Your task to perform on an android device: What's the weather? Image 0: 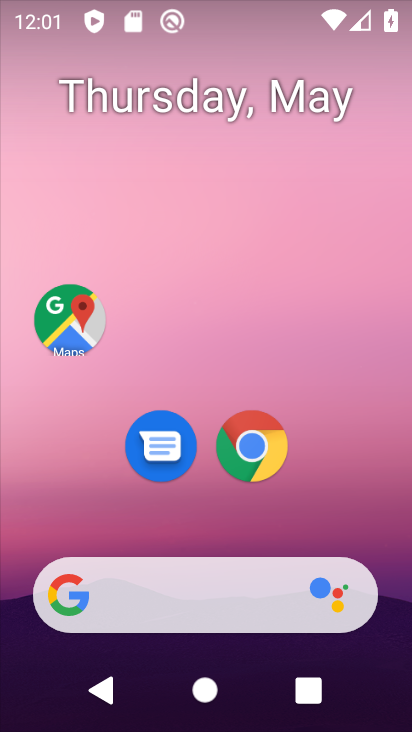
Step 0: drag from (349, 475) to (354, 226)
Your task to perform on an android device: What's the weather? Image 1: 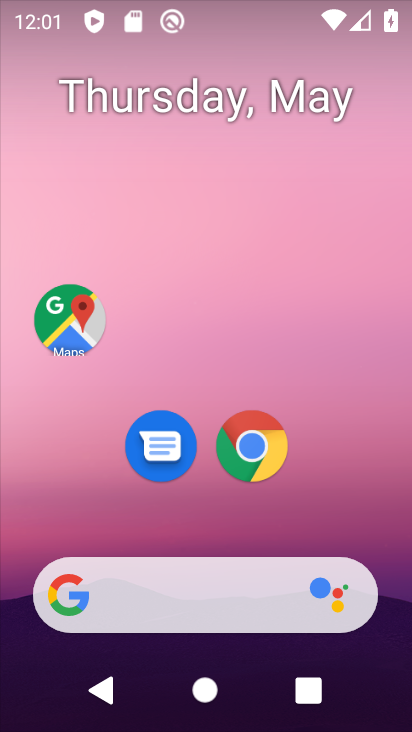
Step 1: click (259, 454)
Your task to perform on an android device: What's the weather? Image 2: 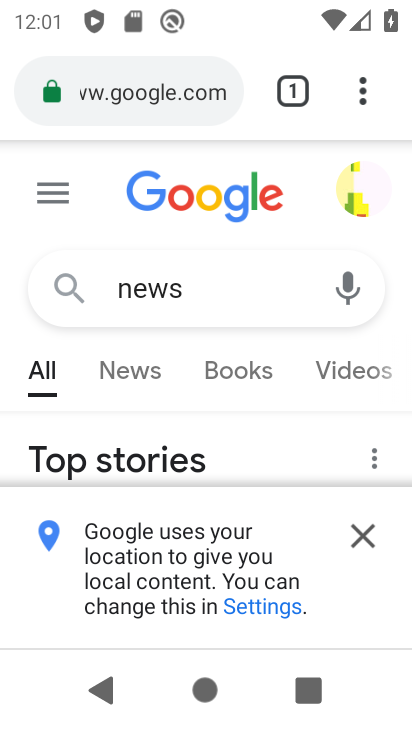
Step 2: click (151, 91)
Your task to perform on an android device: What's the weather? Image 3: 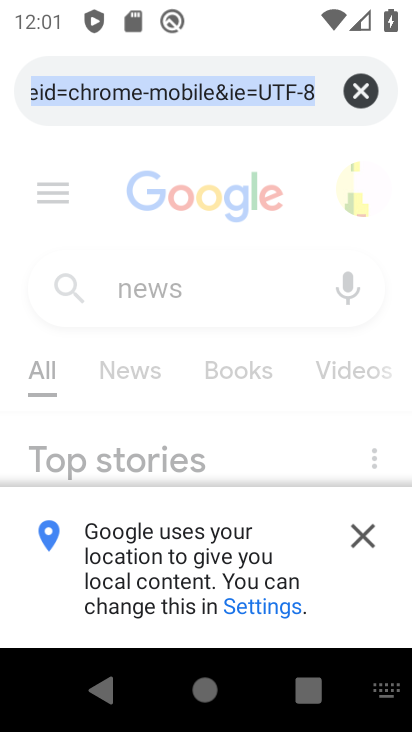
Step 3: click (362, 97)
Your task to perform on an android device: What's the weather? Image 4: 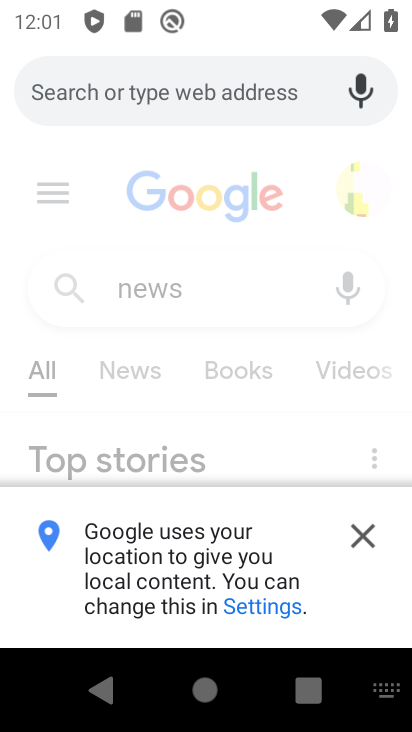
Step 4: type "What's the weather?"
Your task to perform on an android device: What's the weather? Image 5: 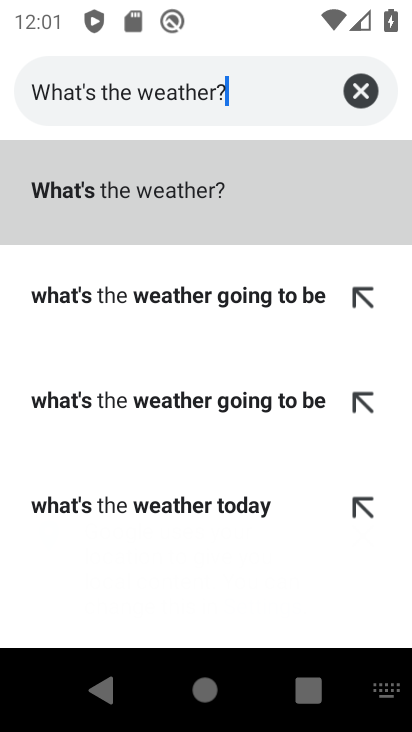
Step 5: click (208, 163)
Your task to perform on an android device: What's the weather? Image 6: 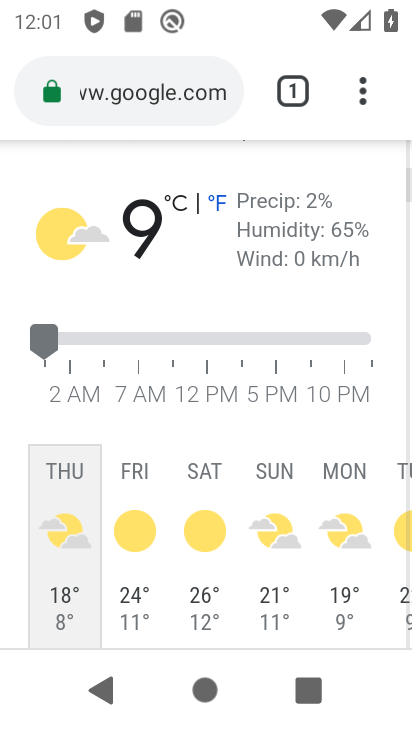
Step 6: task complete